Your task to perform on an android device: turn off airplane mode Image 0: 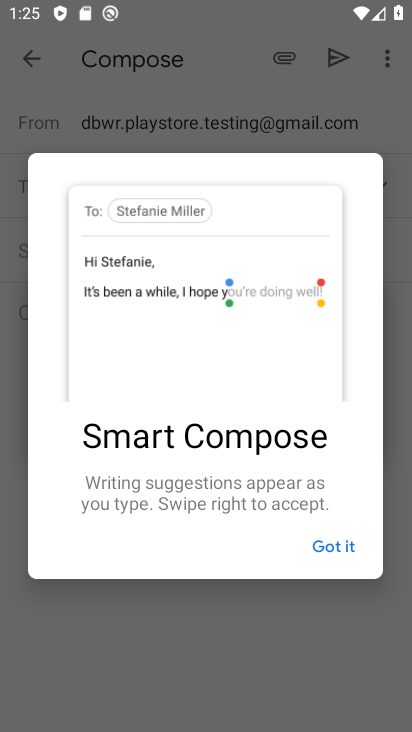
Step 0: press home button
Your task to perform on an android device: turn off airplane mode Image 1: 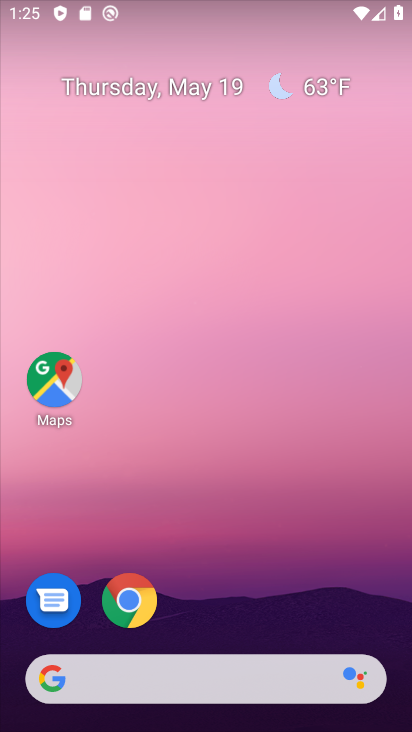
Step 1: task complete